Your task to perform on an android device: turn pop-ups on in chrome Image 0: 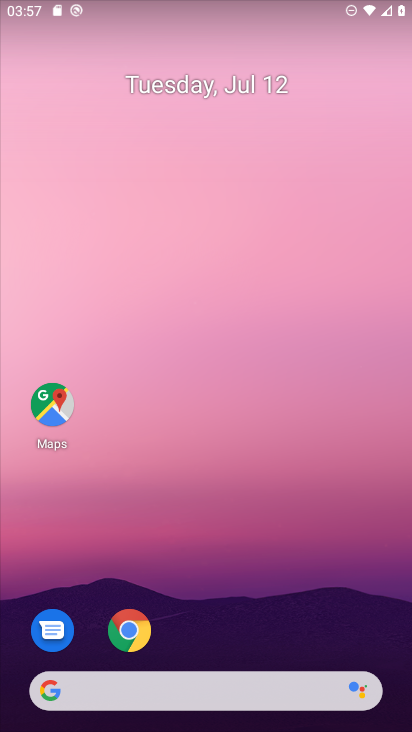
Step 0: click (129, 631)
Your task to perform on an android device: turn pop-ups on in chrome Image 1: 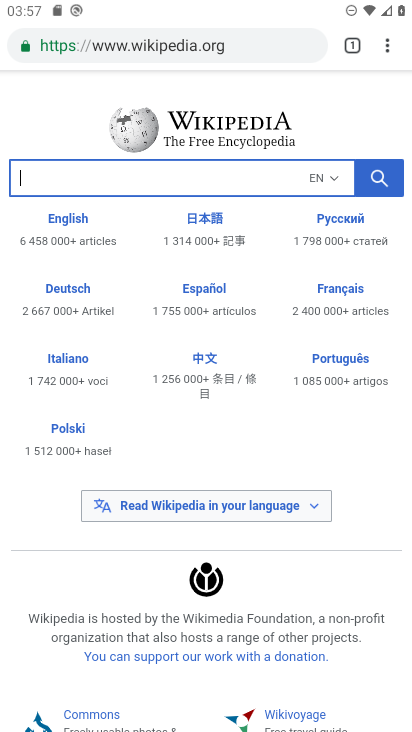
Step 1: click (383, 49)
Your task to perform on an android device: turn pop-ups on in chrome Image 2: 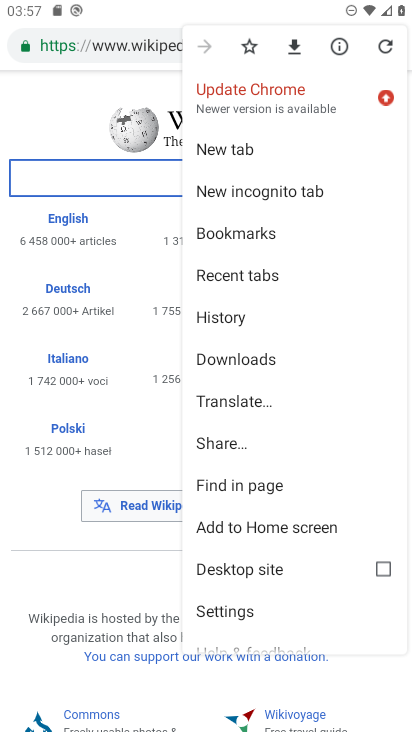
Step 2: click (237, 614)
Your task to perform on an android device: turn pop-ups on in chrome Image 3: 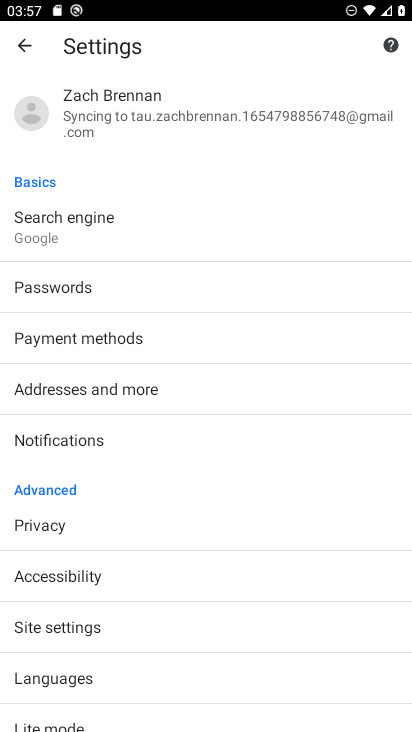
Step 3: drag from (206, 659) to (191, 369)
Your task to perform on an android device: turn pop-ups on in chrome Image 4: 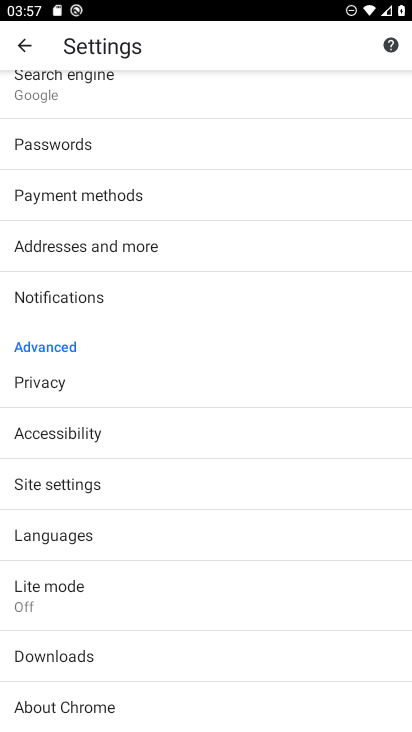
Step 4: click (55, 489)
Your task to perform on an android device: turn pop-ups on in chrome Image 5: 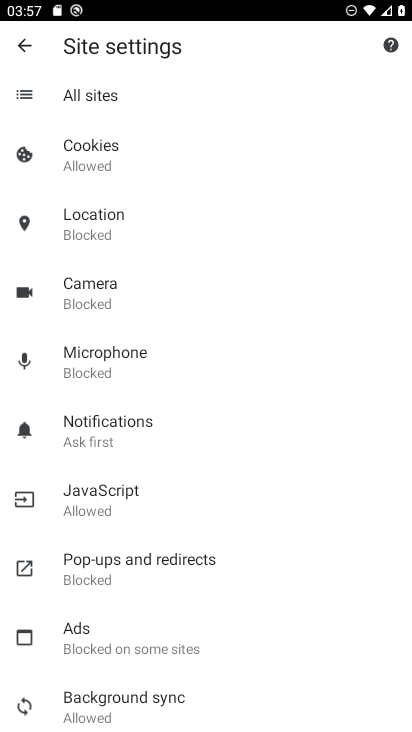
Step 5: click (95, 568)
Your task to perform on an android device: turn pop-ups on in chrome Image 6: 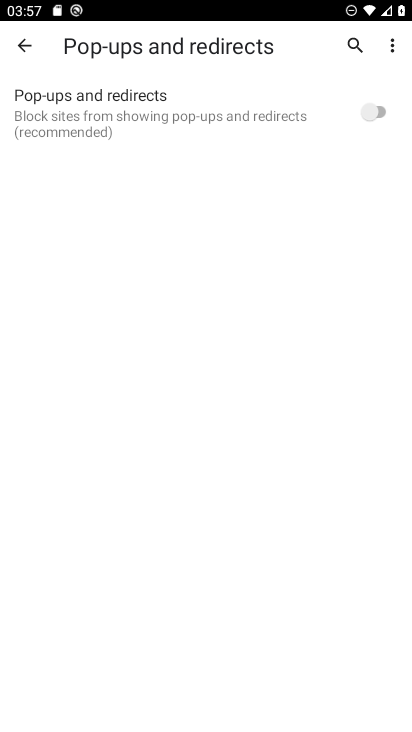
Step 6: click (378, 105)
Your task to perform on an android device: turn pop-ups on in chrome Image 7: 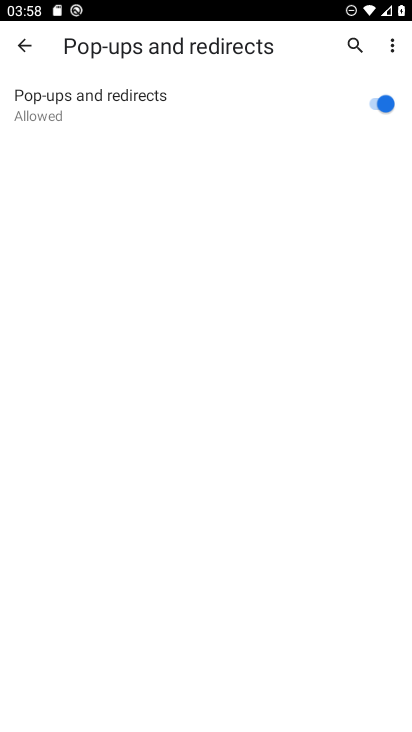
Step 7: task complete